Your task to perform on an android device: Turn on the flashlight Image 0: 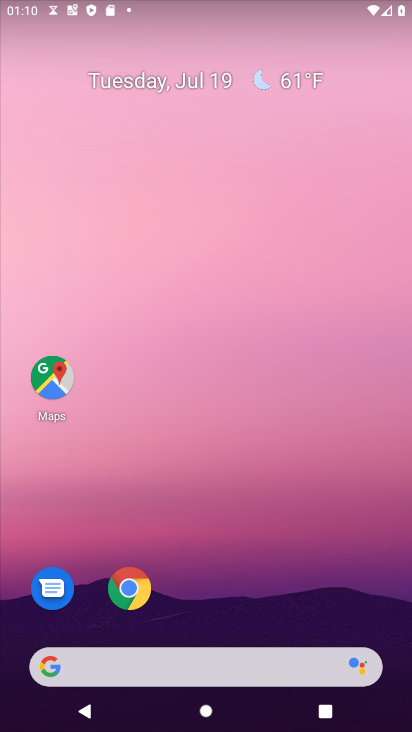
Step 0: drag from (266, 688) to (314, 167)
Your task to perform on an android device: Turn on the flashlight Image 1: 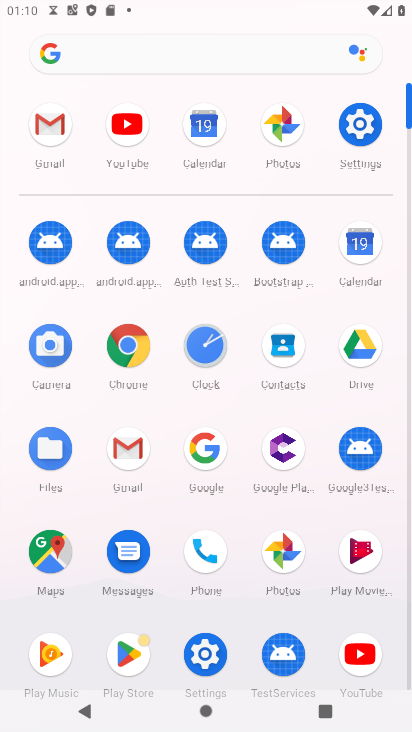
Step 1: click (357, 132)
Your task to perform on an android device: Turn on the flashlight Image 2: 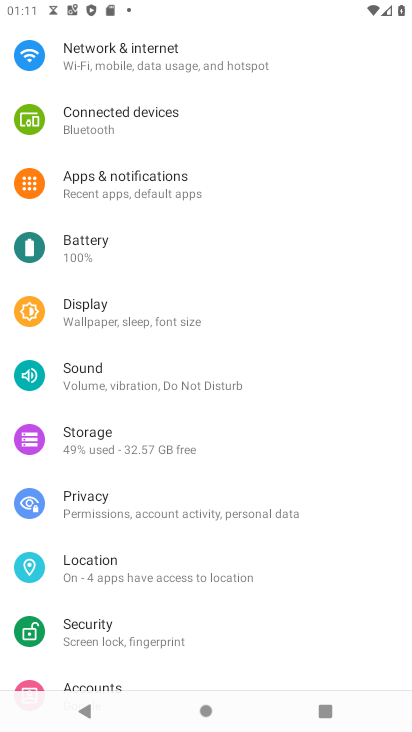
Step 2: drag from (266, 187) to (275, 336)
Your task to perform on an android device: Turn on the flashlight Image 3: 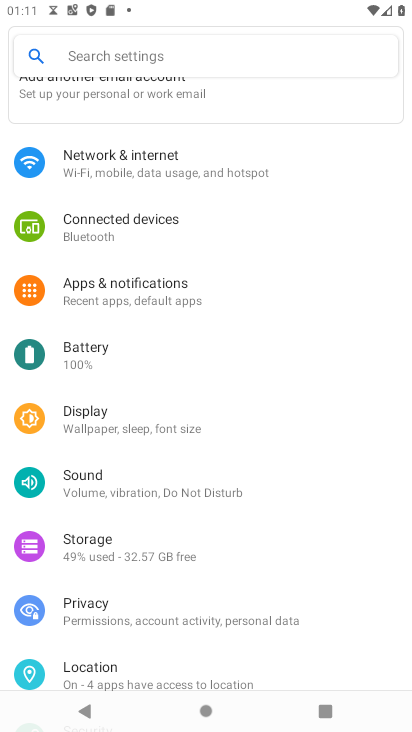
Step 3: click (162, 54)
Your task to perform on an android device: Turn on the flashlight Image 4: 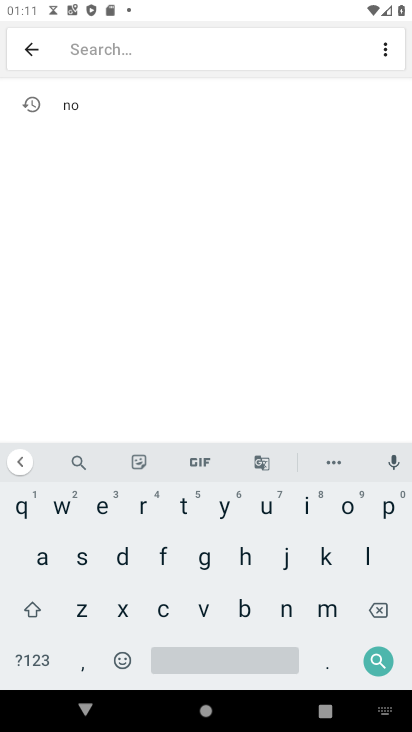
Step 4: click (163, 545)
Your task to perform on an android device: Turn on the flashlight Image 5: 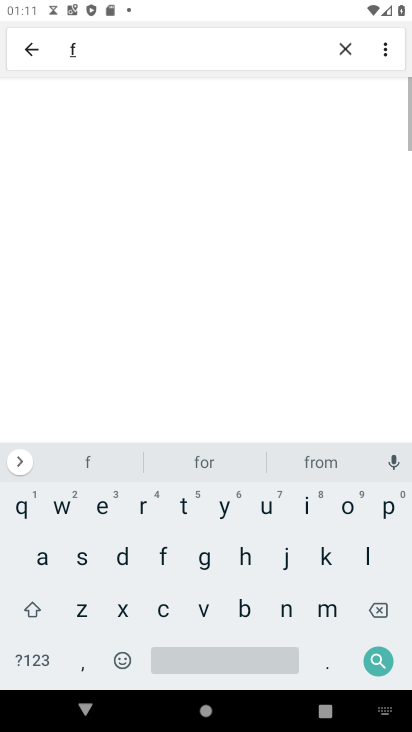
Step 5: click (361, 552)
Your task to perform on an android device: Turn on the flashlight Image 6: 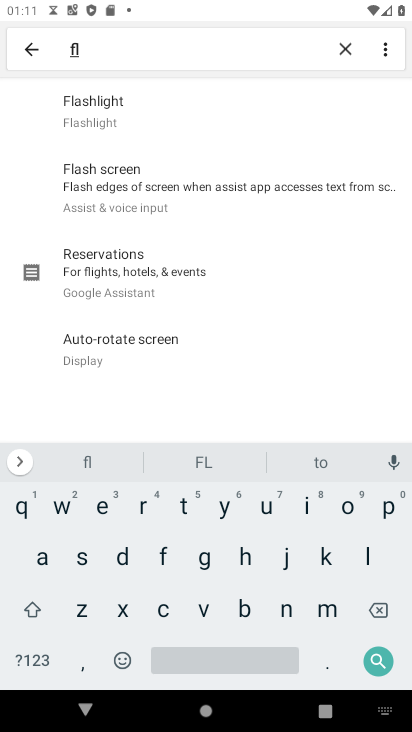
Step 6: click (113, 122)
Your task to perform on an android device: Turn on the flashlight Image 7: 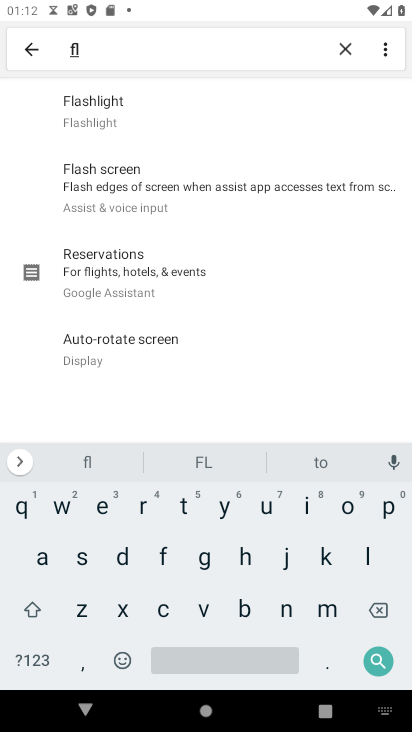
Step 7: click (204, 121)
Your task to perform on an android device: Turn on the flashlight Image 8: 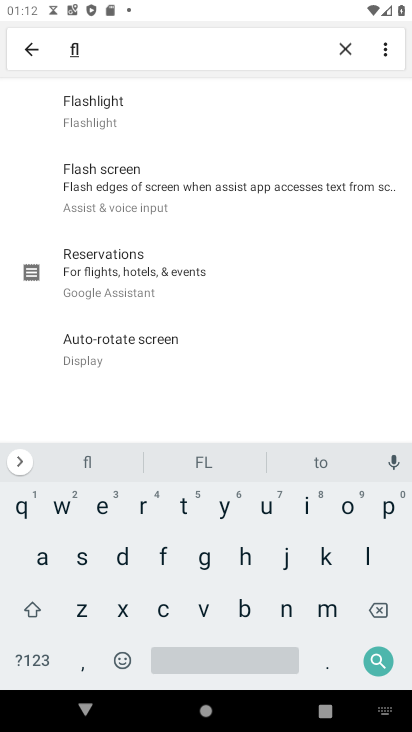
Step 8: task complete